Your task to perform on an android device: add a contact in the contacts app Image 0: 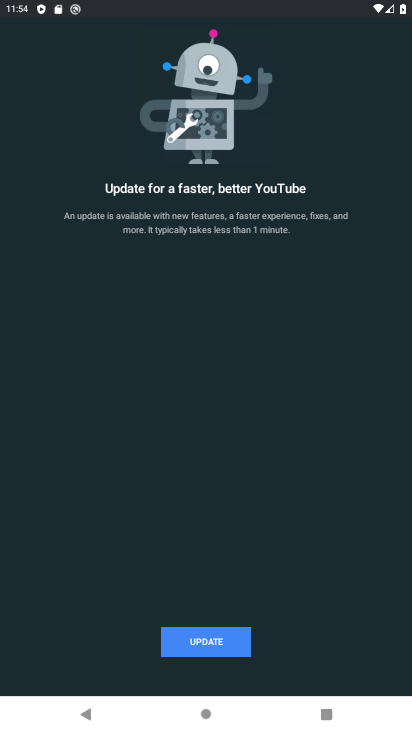
Step 0: press home button
Your task to perform on an android device: add a contact in the contacts app Image 1: 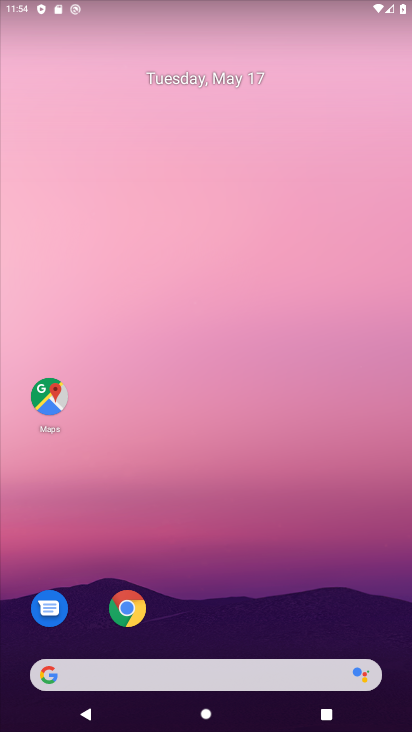
Step 1: drag from (213, 589) to (201, 217)
Your task to perform on an android device: add a contact in the contacts app Image 2: 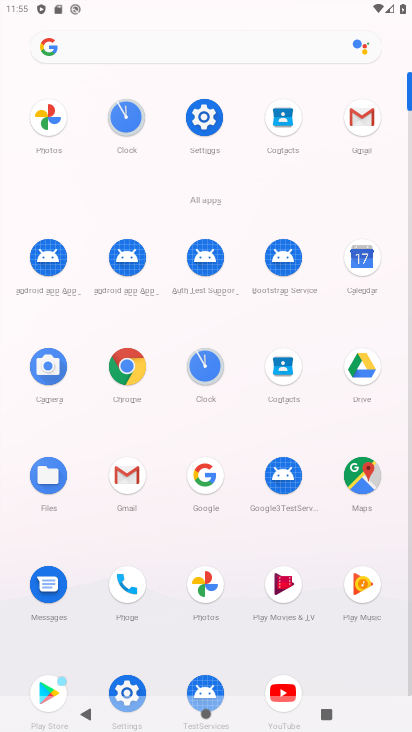
Step 2: click (282, 126)
Your task to perform on an android device: add a contact in the contacts app Image 3: 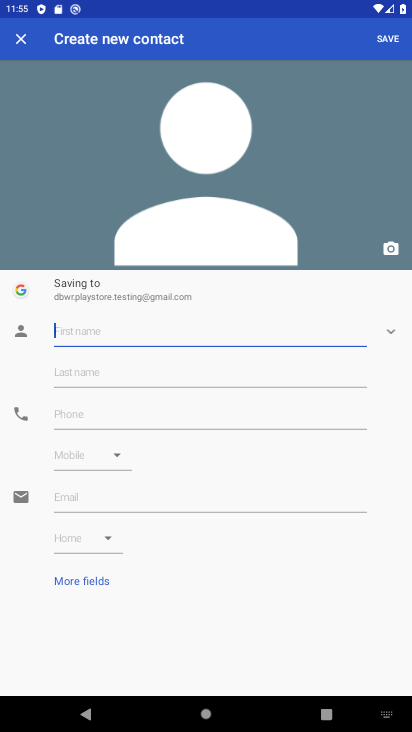
Step 3: type "hgc"
Your task to perform on an android device: add a contact in the contacts app Image 4: 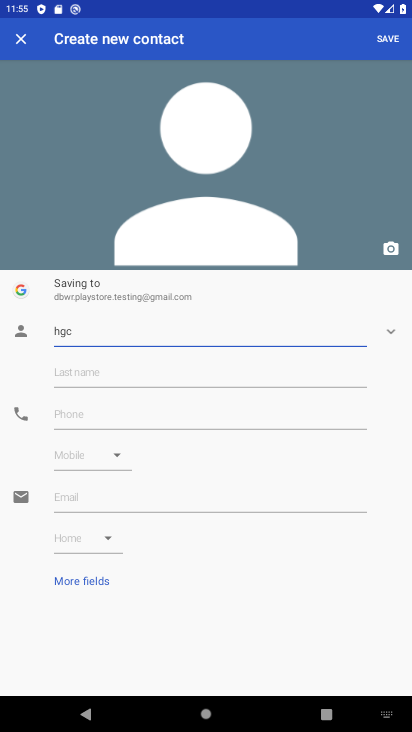
Step 4: click (275, 401)
Your task to perform on an android device: add a contact in the contacts app Image 5: 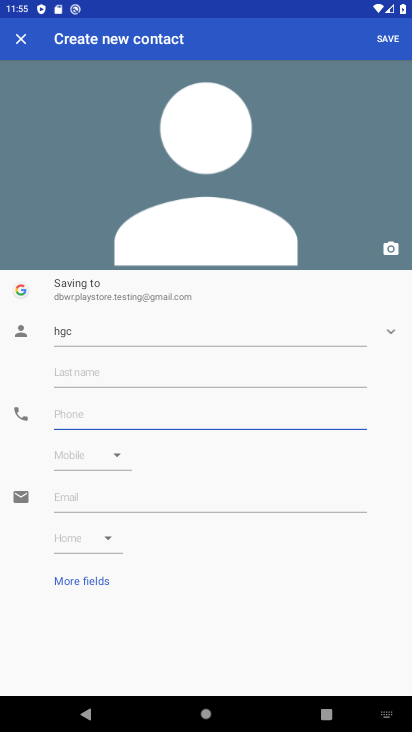
Step 5: type "8998"
Your task to perform on an android device: add a contact in the contacts app Image 6: 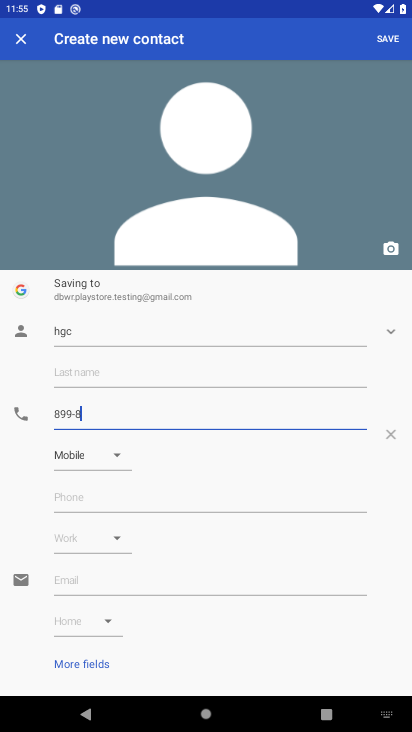
Step 6: click (390, 29)
Your task to perform on an android device: add a contact in the contacts app Image 7: 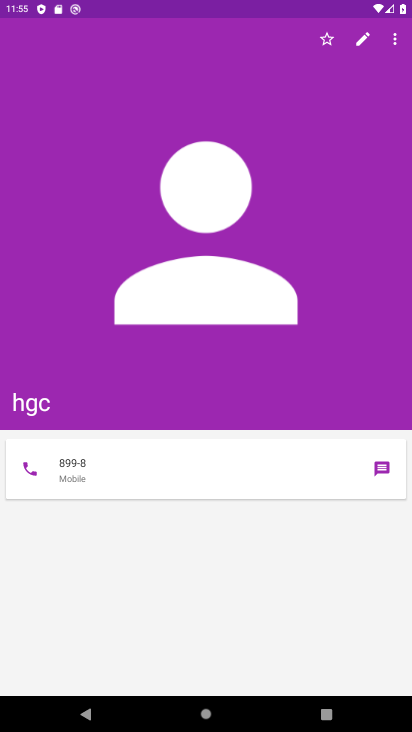
Step 7: task complete